Your task to perform on an android device: Go to notification settings Image 0: 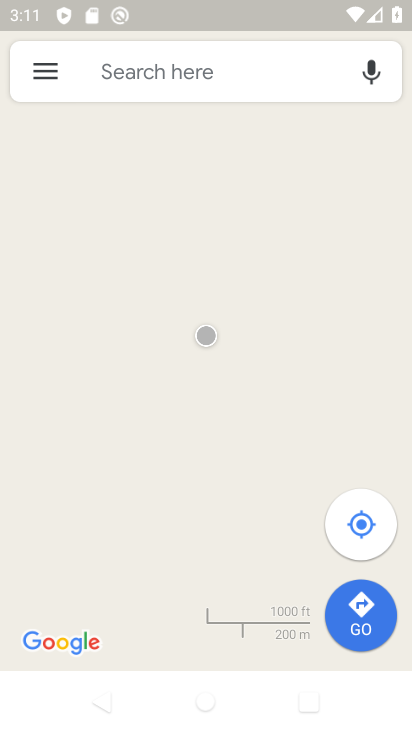
Step 0: press home button
Your task to perform on an android device: Go to notification settings Image 1: 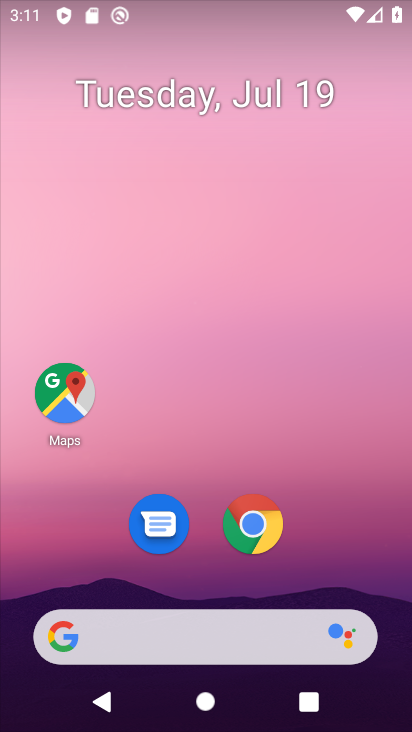
Step 1: drag from (319, 525) to (332, 69)
Your task to perform on an android device: Go to notification settings Image 2: 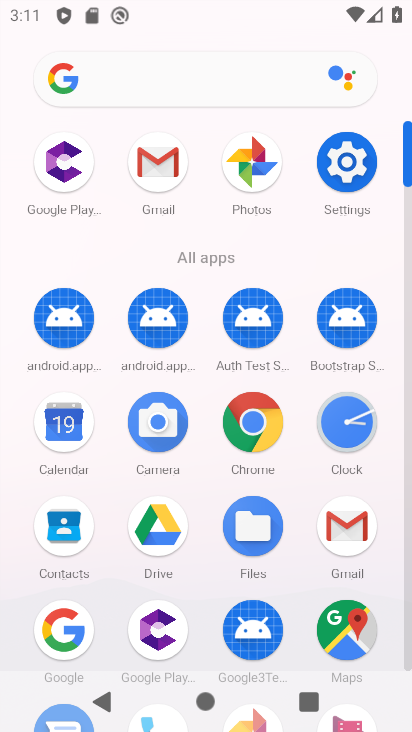
Step 2: click (340, 166)
Your task to perform on an android device: Go to notification settings Image 3: 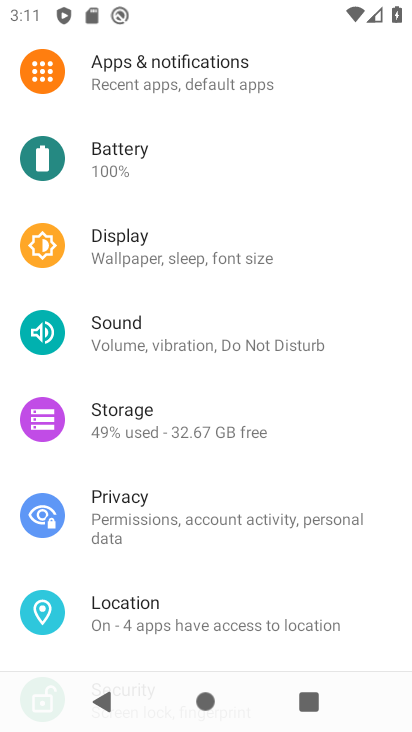
Step 3: drag from (244, 243) to (278, 552)
Your task to perform on an android device: Go to notification settings Image 4: 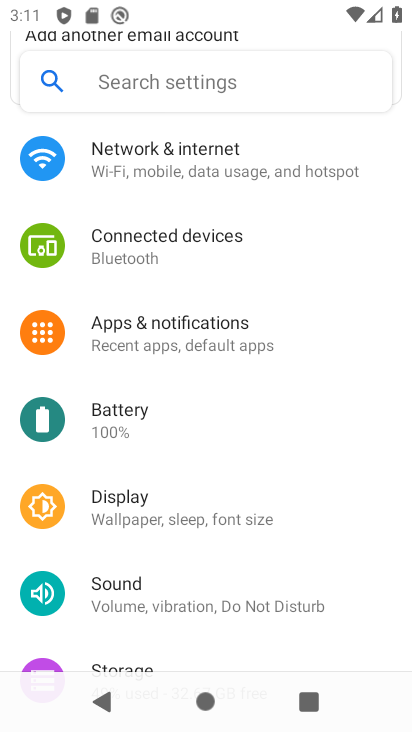
Step 4: click (248, 342)
Your task to perform on an android device: Go to notification settings Image 5: 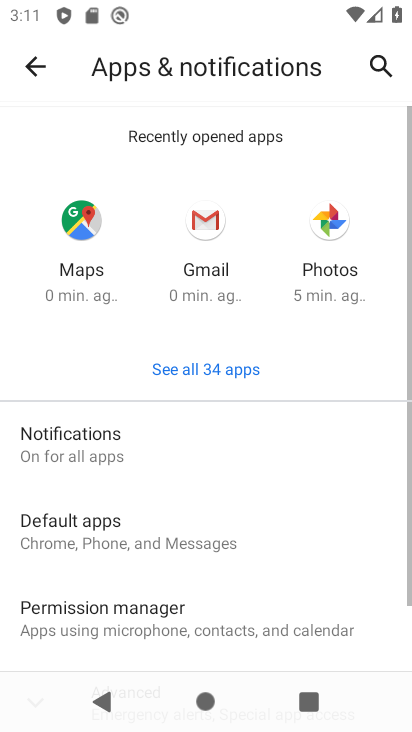
Step 5: click (120, 455)
Your task to perform on an android device: Go to notification settings Image 6: 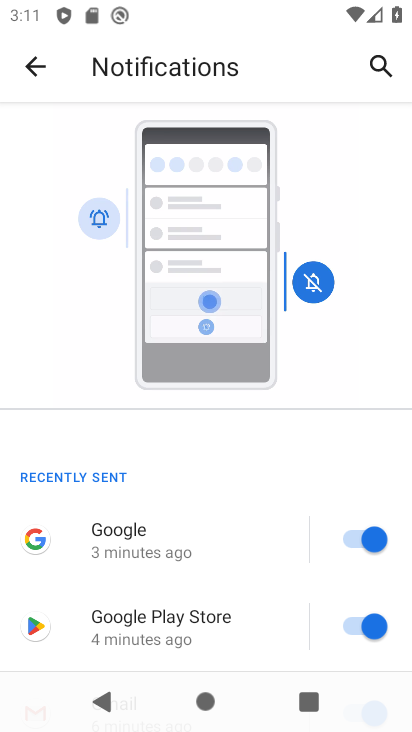
Step 6: task complete